Your task to perform on an android device: View the shopping cart on costco. Add "panasonic triple a" to the cart on costco, then select checkout. Image 0: 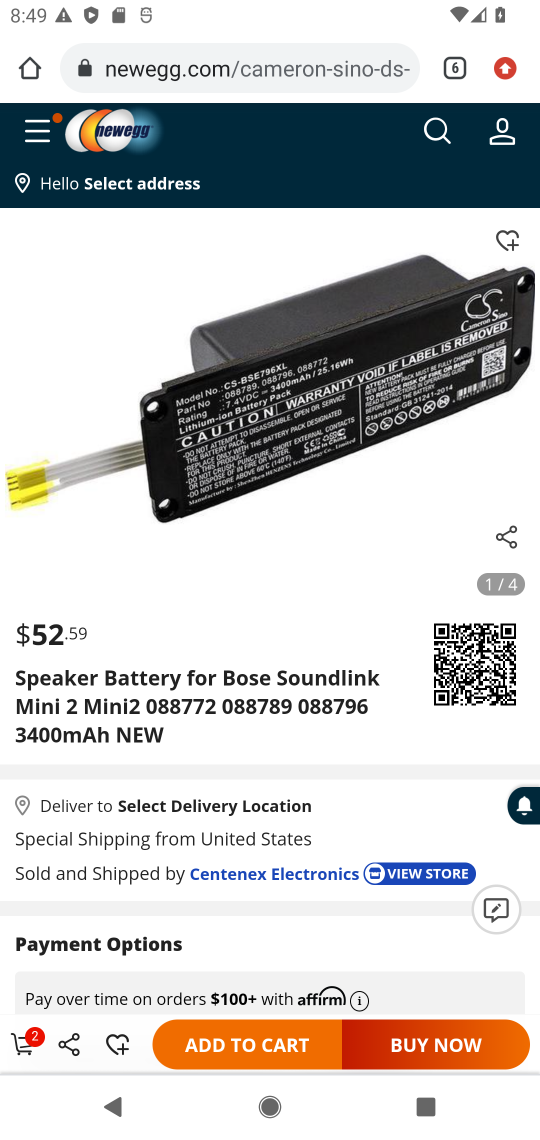
Step 0: click (453, 77)
Your task to perform on an android device: View the shopping cart on costco. Add "panasonic triple a" to the cart on costco, then select checkout. Image 1: 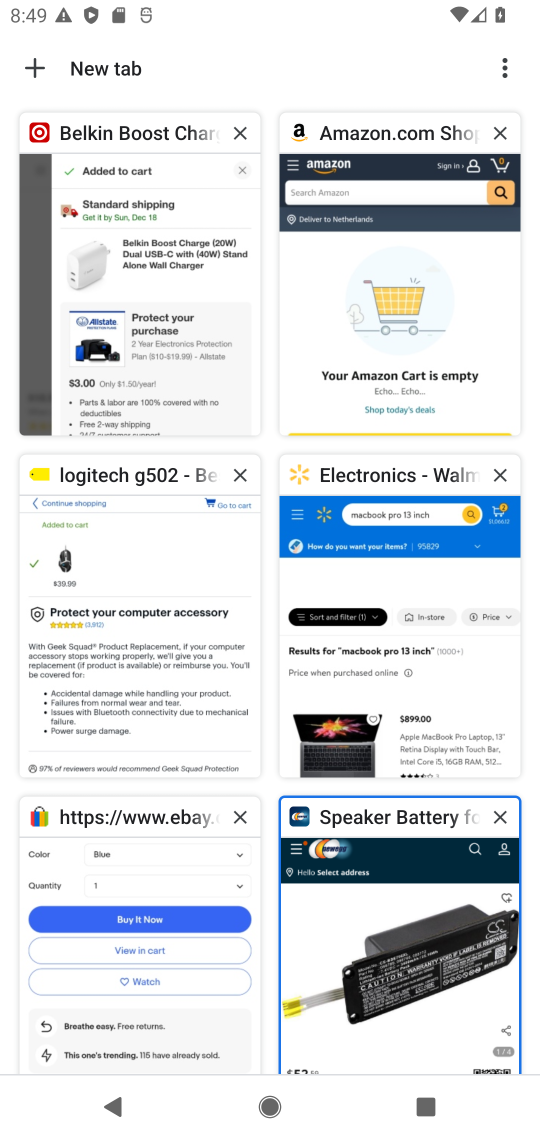
Step 1: click (34, 64)
Your task to perform on an android device: View the shopping cart on costco. Add "panasonic triple a" to the cart on costco, then select checkout. Image 2: 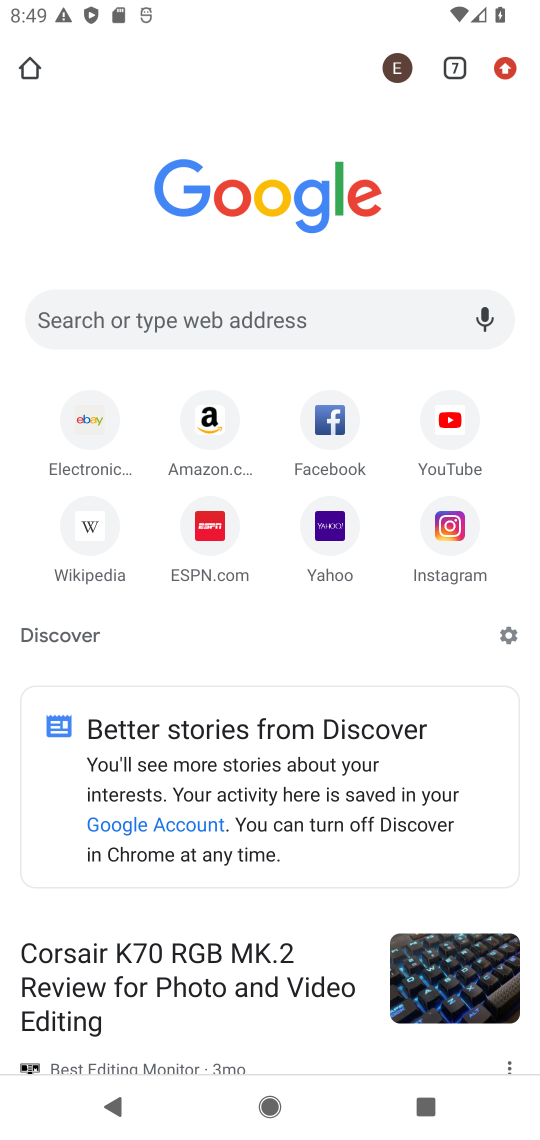
Step 2: click (309, 310)
Your task to perform on an android device: View the shopping cart on costco. Add "panasonic triple a" to the cart on costco, then select checkout. Image 3: 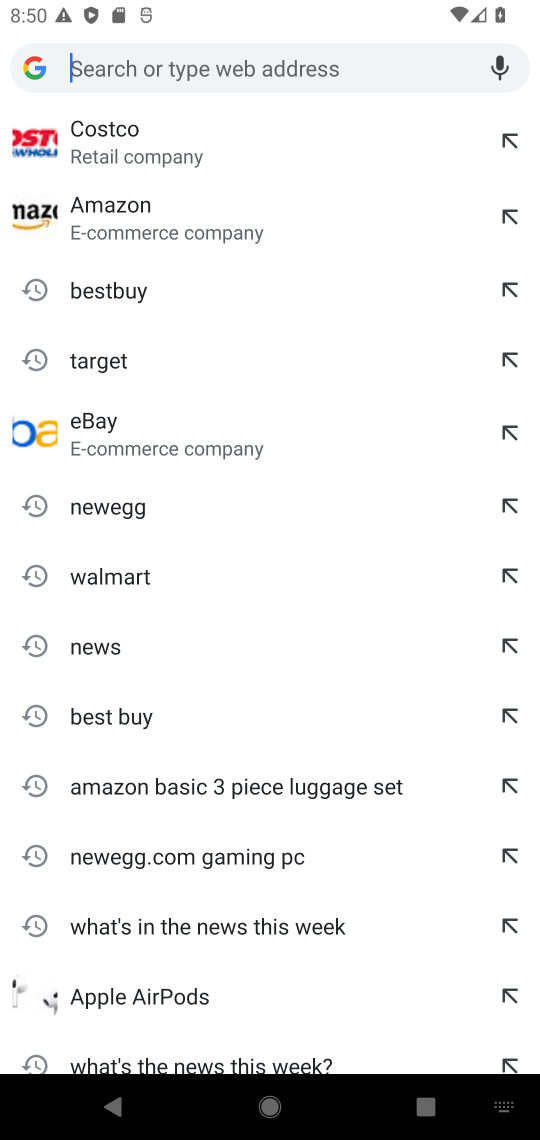
Step 3: click (138, 136)
Your task to perform on an android device: View the shopping cart on costco. Add "panasonic triple a" to the cart on costco, then select checkout. Image 4: 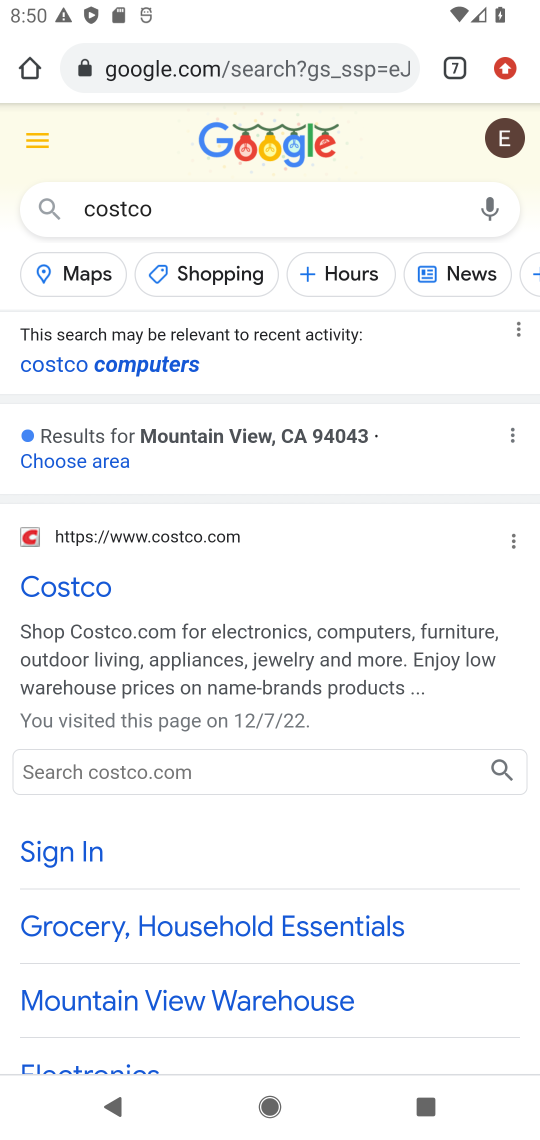
Step 4: click (169, 779)
Your task to perform on an android device: View the shopping cart on costco. Add "panasonic triple a" to the cart on costco, then select checkout. Image 5: 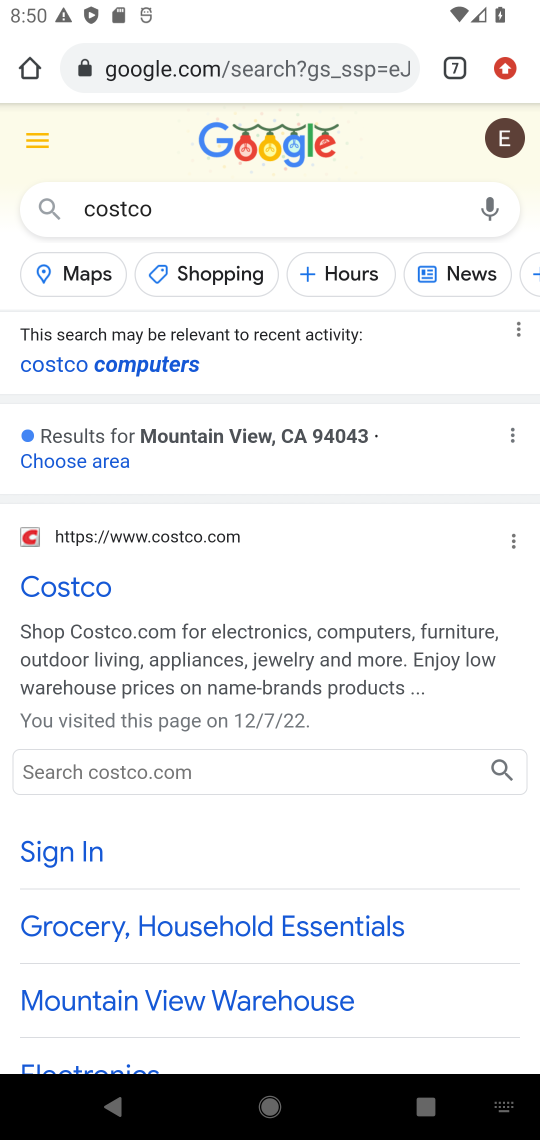
Step 5: type "panasonic triple a"
Your task to perform on an android device: View the shopping cart on costco. Add "panasonic triple a" to the cart on costco, then select checkout. Image 6: 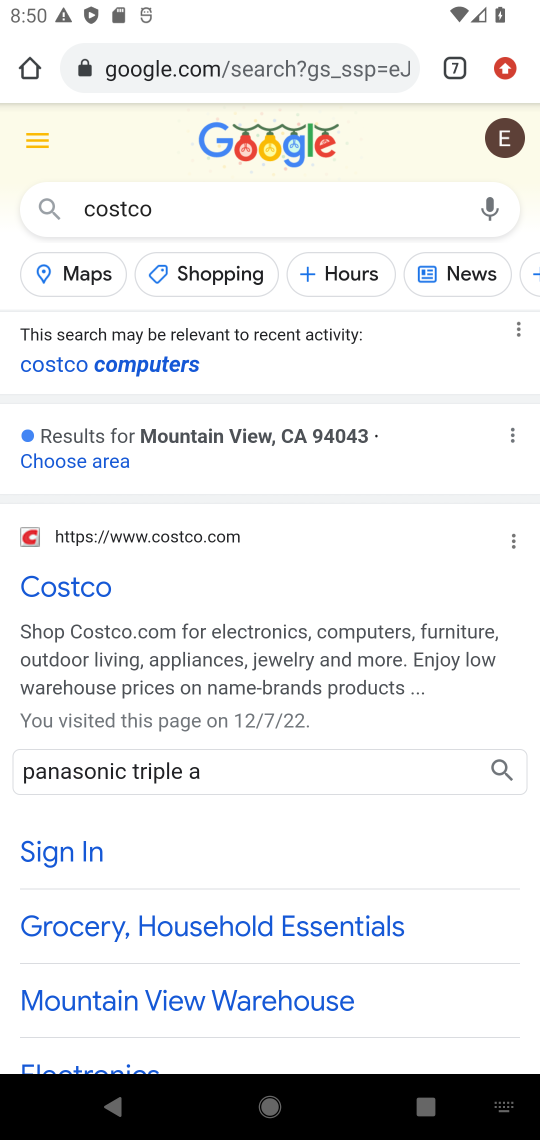
Step 6: click (500, 764)
Your task to perform on an android device: View the shopping cart on costco. Add "panasonic triple a" to the cart on costco, then select checkout. Image 7: 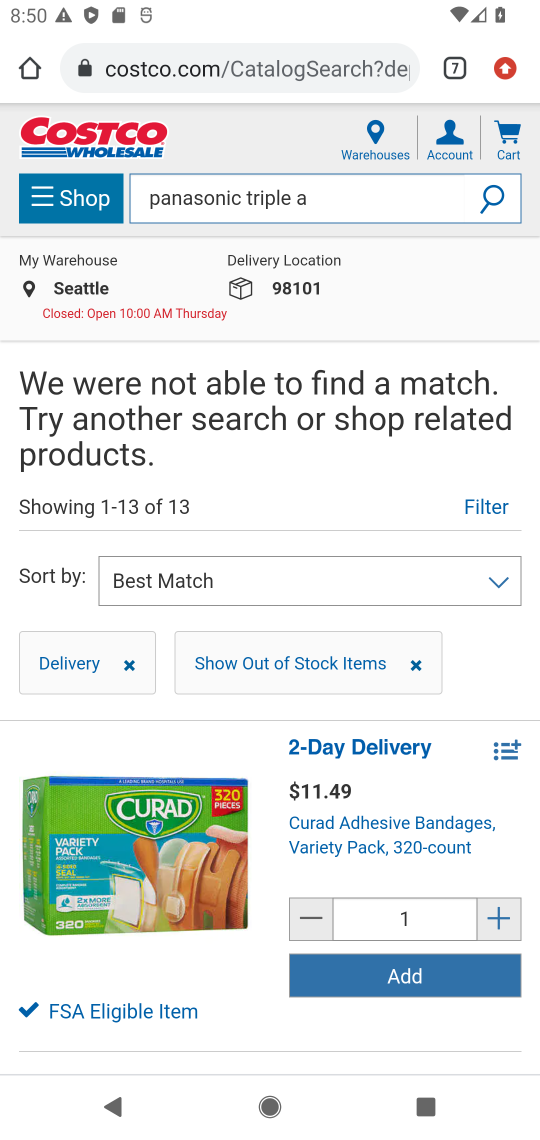
Step 7: task complete